Your task to perform on an android device: Search for Mexican restaurants on Maps Image 0: 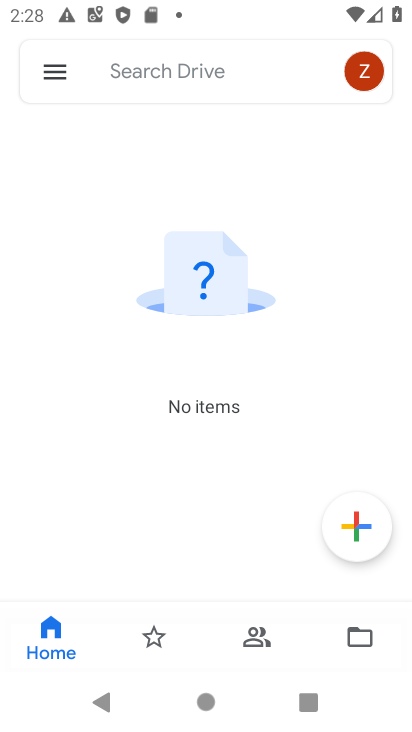
Step 0: press home button
Your task to perform on an android device: Search for Mexican restaurants on Maps Image 1: 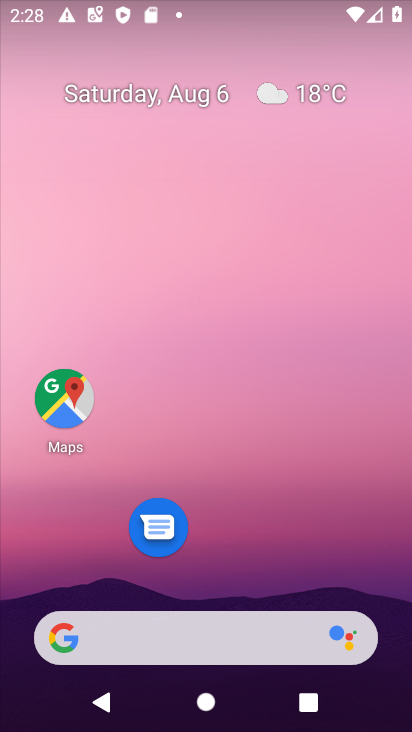
Step 1: drag from (221, 504) to (190, 7)
Your task to perform on an android device: Search for Mexican restaurants on Maps Image 2: 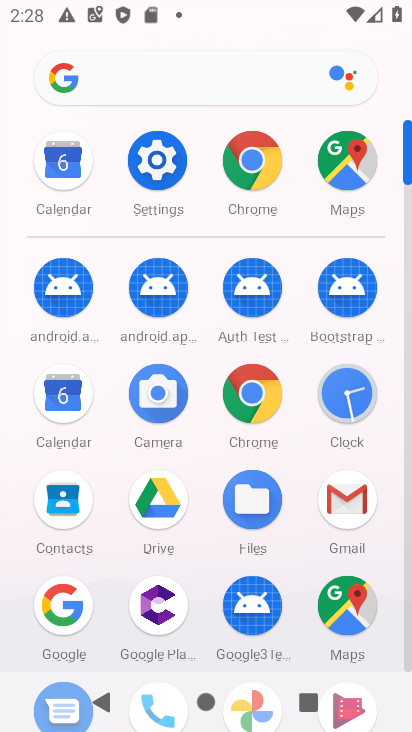
Step 2: click (346, 587)
Your task to perform on an android device: Search for Mexican restaurants on Maps Image 3: 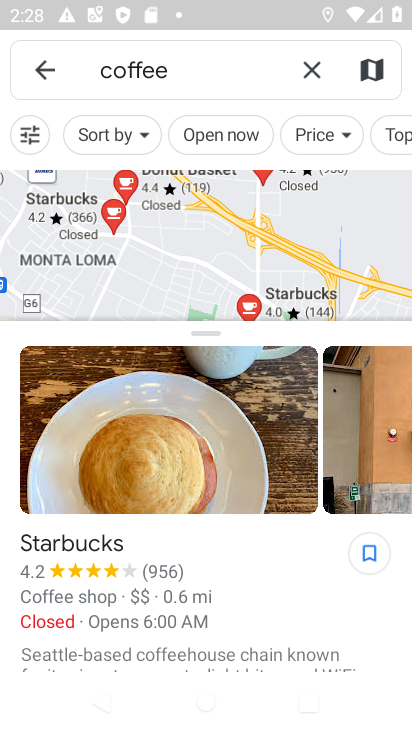
Step 3: click (317, 81)
Your task to perform on an android device: Search for Mexican restaurants on Maps Image 4: 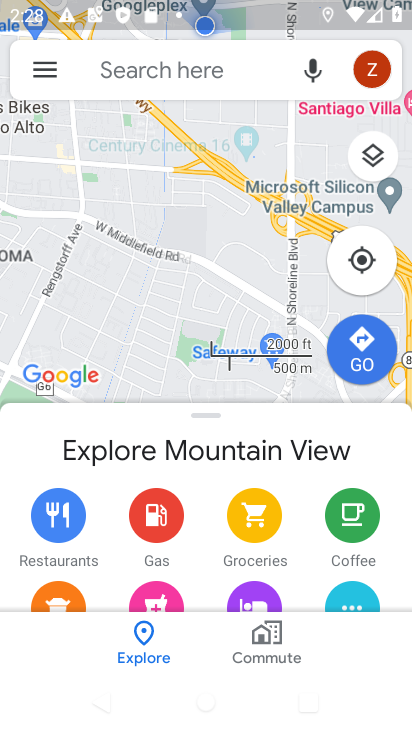
Step 4: click (254, 71)
Your task to perform on an android device: Search for Mexican restaurants on Maps Image 5: 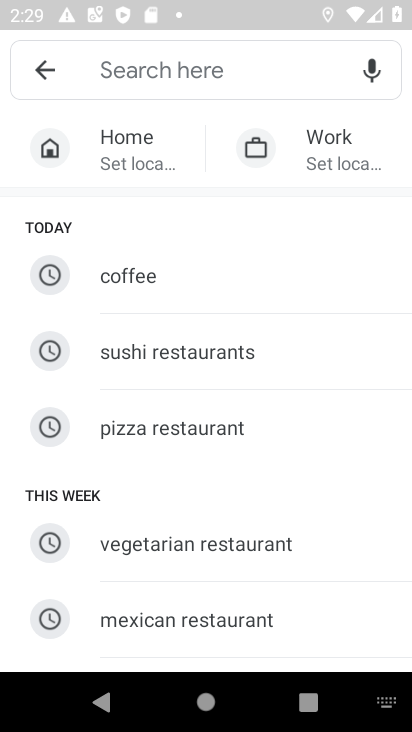
Step 5: click (218, 606)
Your task to perform on an android device: Search for Mexican restaurants on Maps Image 6: 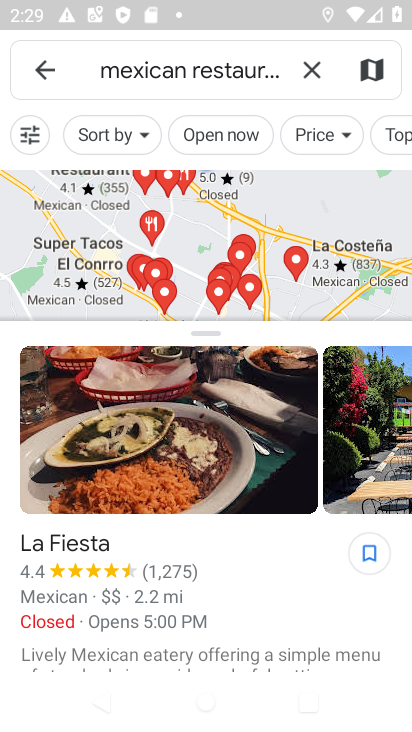
Step 6: task complete